Your task to perform on an android device: Open ESPN.com Image 0: 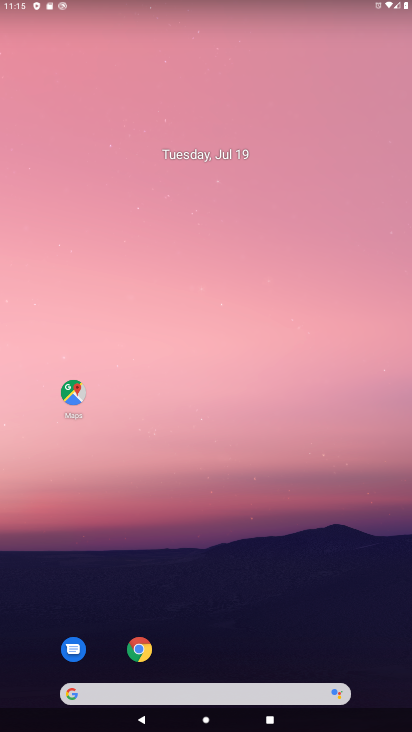
Step 0: drag from (250, 684) to (260, 111)
Your task to perform on an android device: Open ESPN.com Image 1: 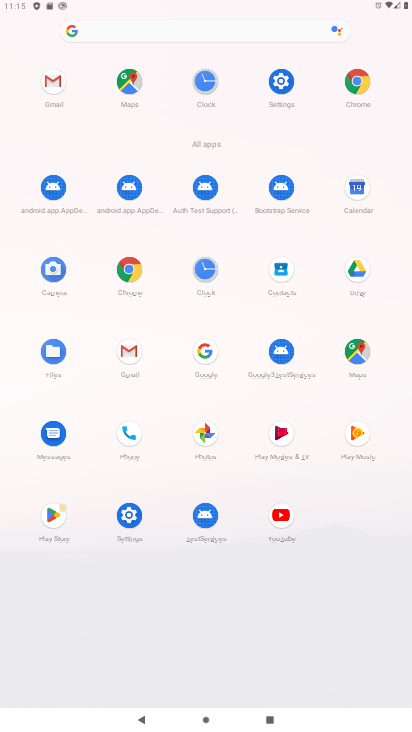
Step 1: click (129, 261)
Your task to perform on an android device: Open ESPN.com Image 2: 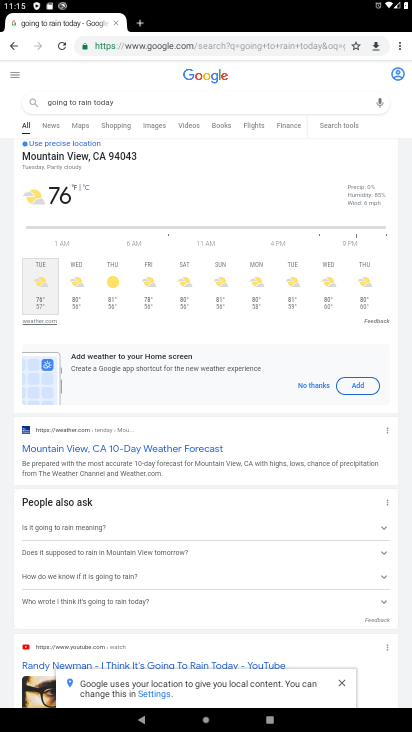
Step 2: click (125, 101)
Your task to perform on an android device: Open ESPN.com Image 3: 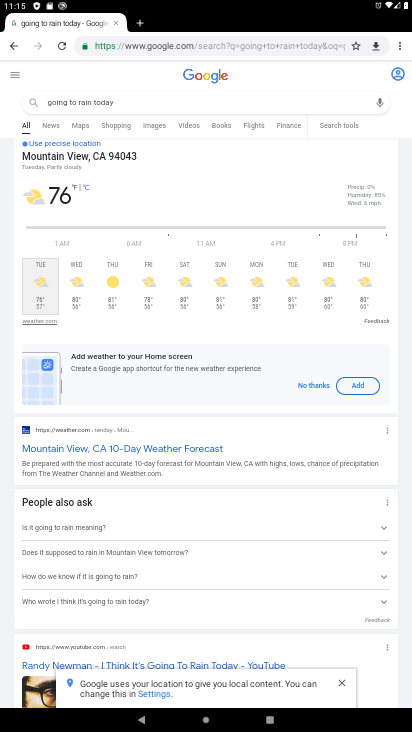
Step 3: click (156, 103)
Your task to perform on an android device: Open ESPN.com Image 4: 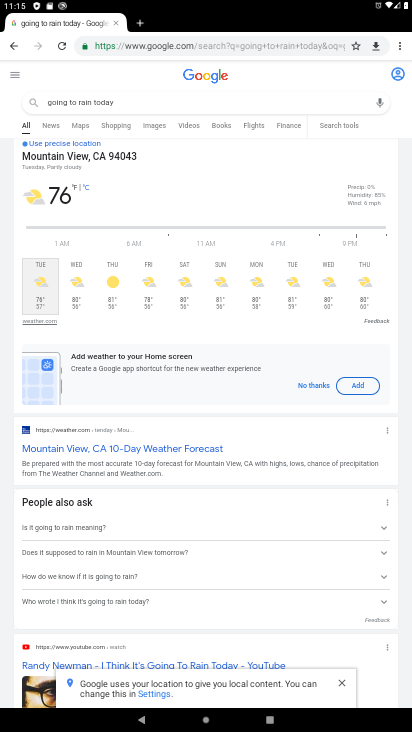
Step 4: click (156, 103)
Your task to perform on an android device: Open ESPN.com Image 5: 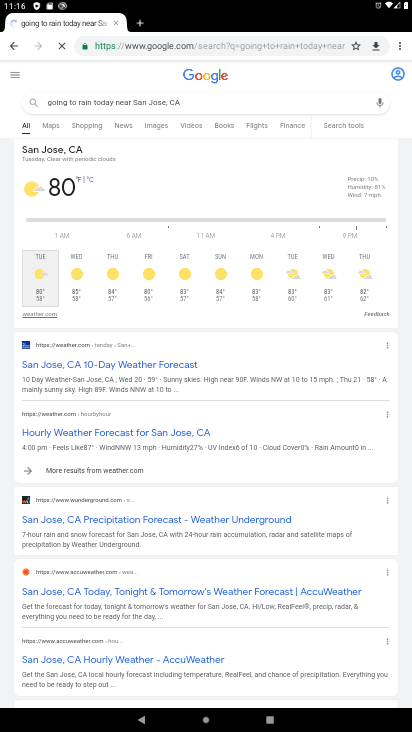
Step 5: click (256, 45)
Your task to perform on an android device: Open ESPN.com Image 6: 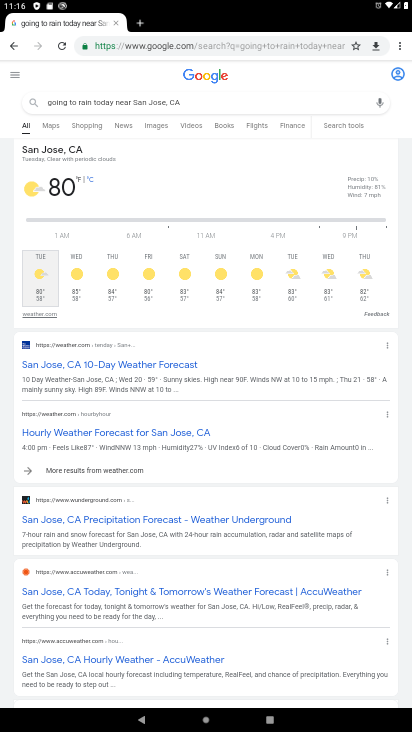
Step 6: click (275, 46)
Your task to perform on an android device: Open ESPN.com Image 7: 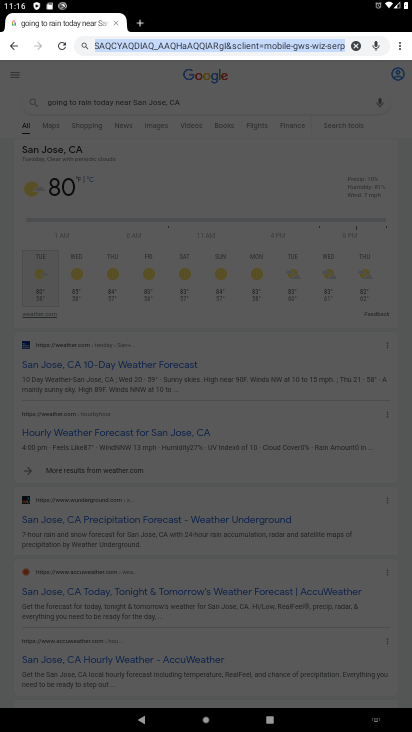
Step 7: type "espn.com"
Your task to perform on an android device: Open ESPN.com Image 8: 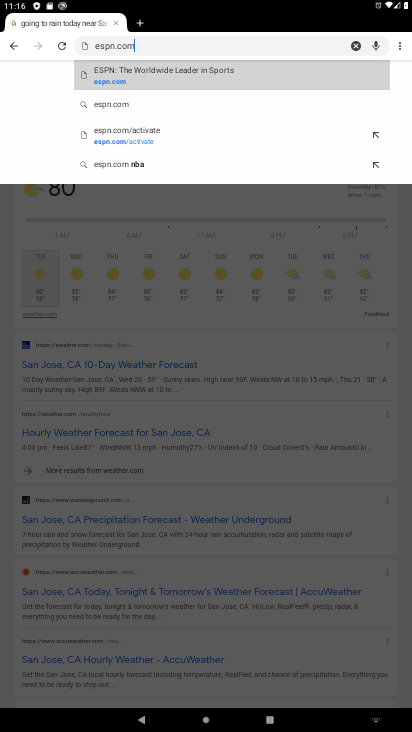
Step 8: click (274, 68)
Your task to perform on an android device: Open ESPN.com Image 9: 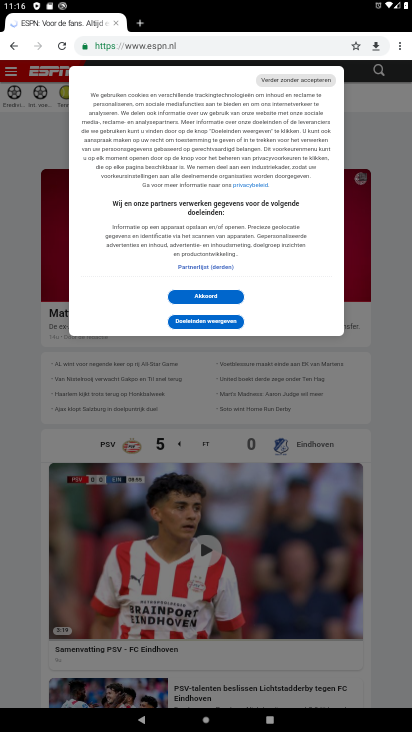
Step 9: task complete